Your task to perform on an android device: refresh tabs in the chrome app Image 0: 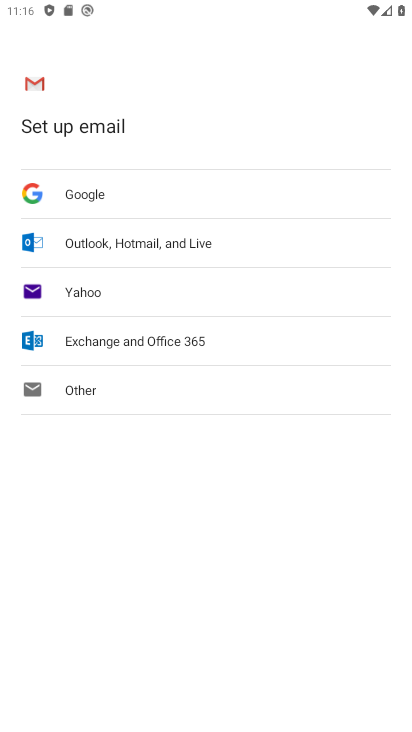
Step 0: press home button
Your task to perform on an android device: refresh tabs in the chrome app Image 1: 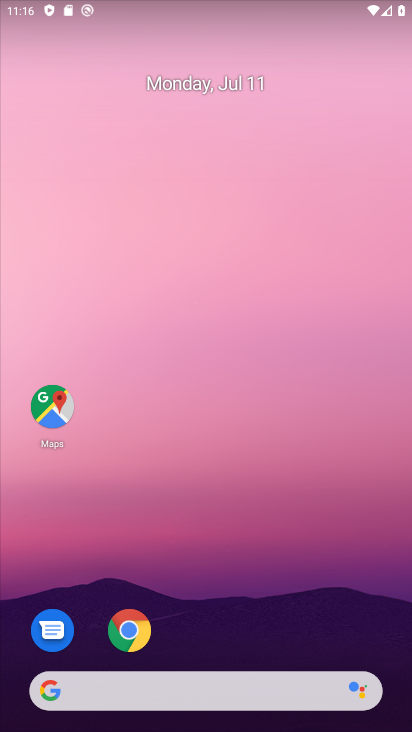
Step 1: click (126, 633)
Your task to perform on an android device: refresh tabs in the chrome app Image 2: 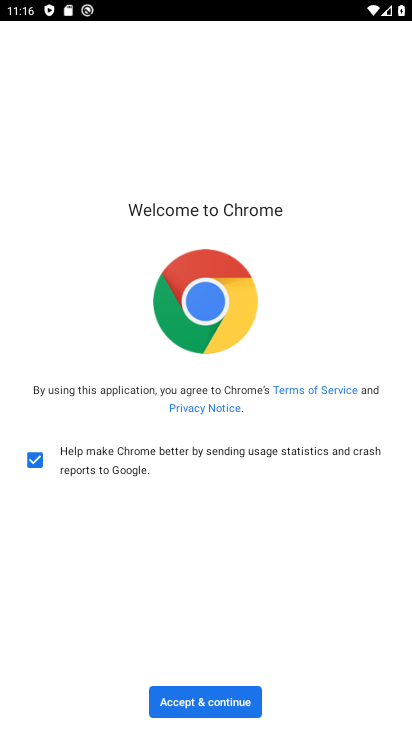
Step 2: click (185, 700)
Your task to perform on an android device: refresh tabs in the chrome app Image 3: 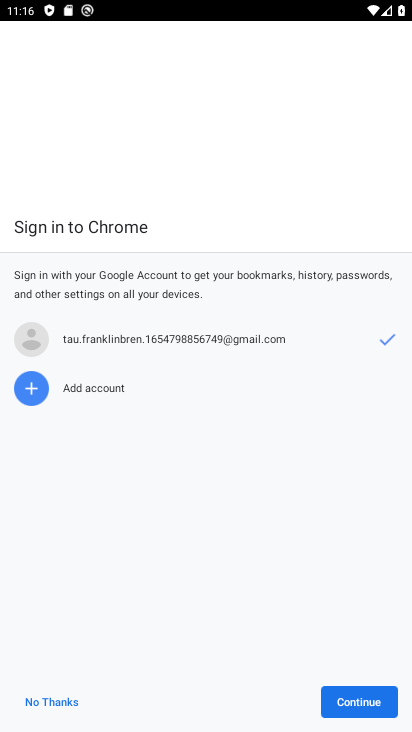
Step 3: click (342, 699)
Your task to perform on an android device: refresh tabs in the chrome app Image 4: 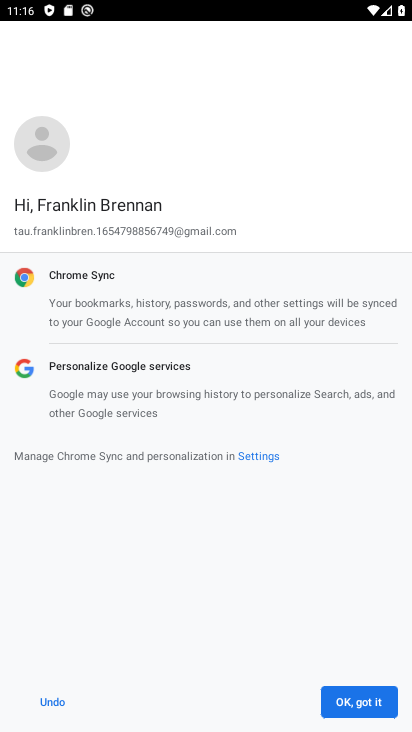
Step 4: click (342, 699)
Your task to perform on an android device: refresh tabs in the chrome app Image 5: 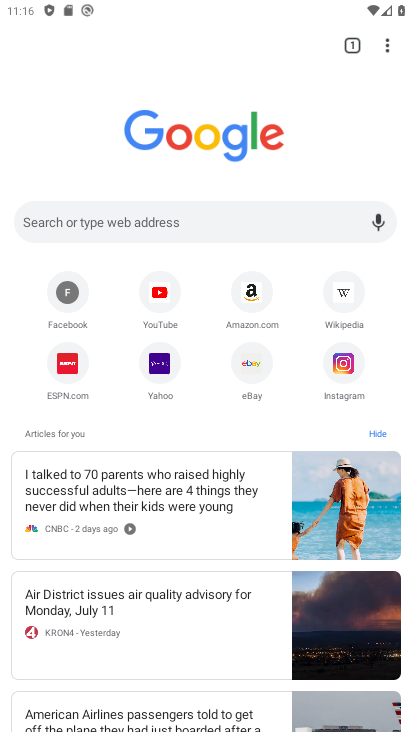
Step 5: click (386, 45)
Your task to perform on an android device: refresh tabs in the chrome app Image 6: 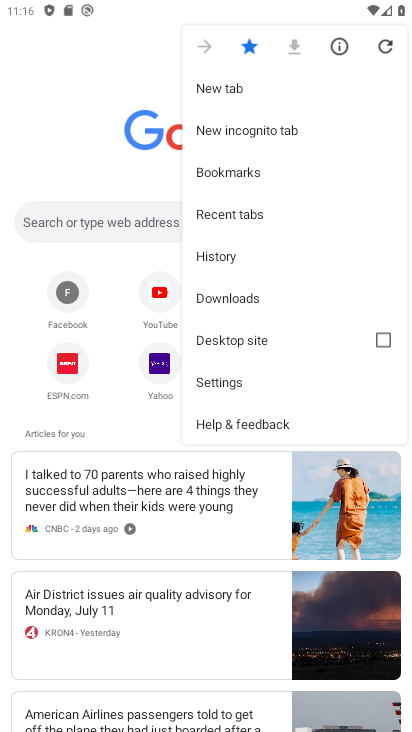
Step 6: click (386, 47)
Your task to perform on an android device: refresh tabs in the chrome app Image 7: 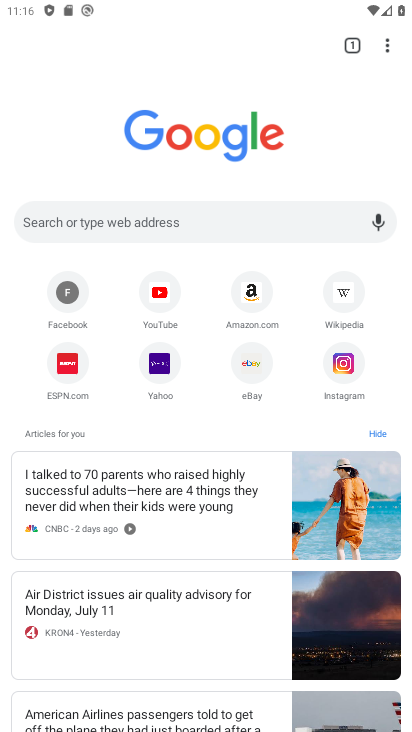
Step 7: task complete